Your task to perform on an android device: turn off smart reply in the gmail app Image 0: 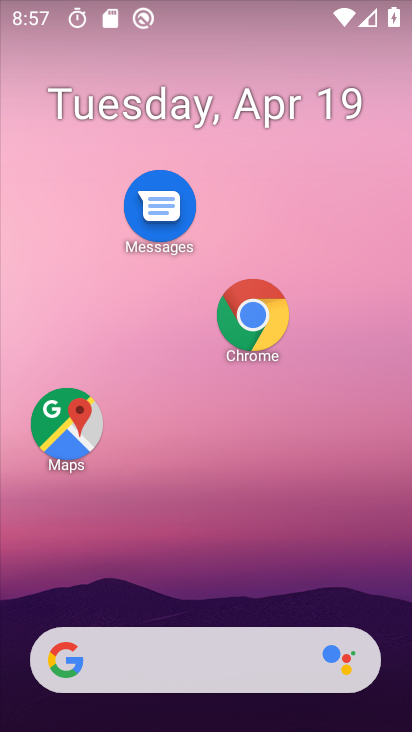
Step 0: drag from (192, 645) to (126, 35)
Your task to perform on an android device: turn off smart reply in the gmail app Image 1: 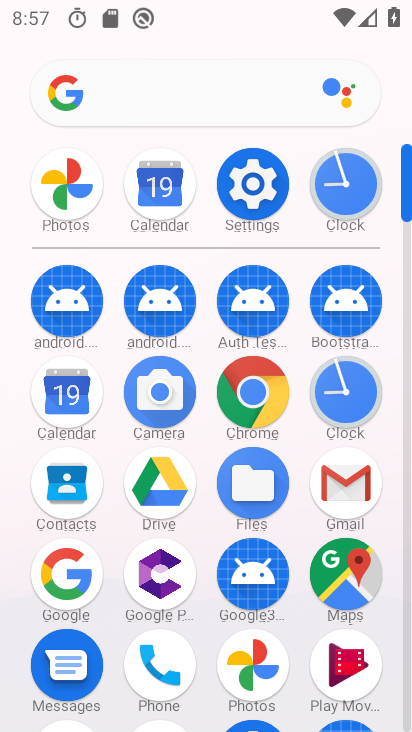
Step 1: click (363, 503)
Your task to perform on an android device: turn off smart reply in the gmail app Image 2: 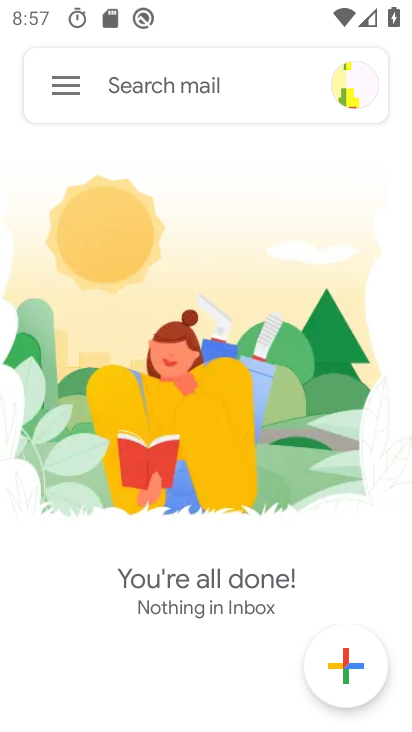
Step 2: click (55, 87)
Your task to perform on an android device: turn off smart reply in the gmail app Image 3: 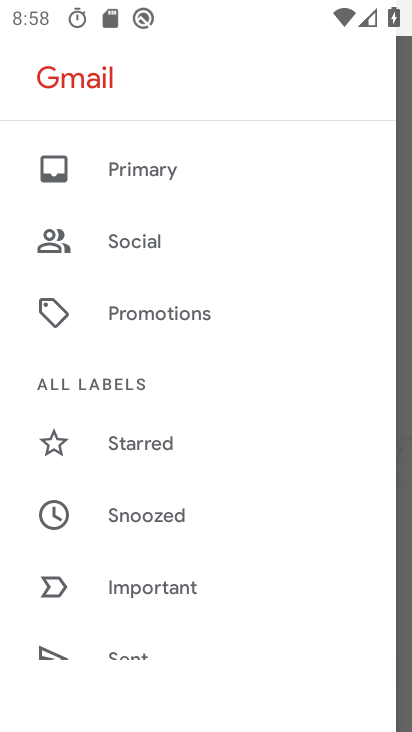
Step 3: drag from (154, 608) to (159, 127)
Your task to perform on an android device: turn off smart reply in the gmail app Image 4: 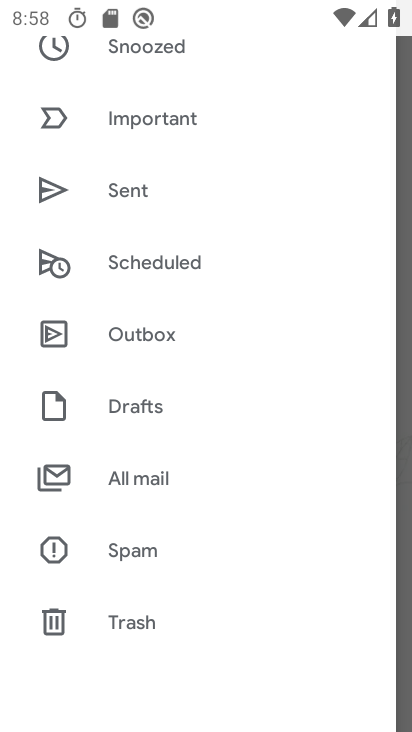
Step 4: drag from (156, 570) to (142, 75)
Your task to perform on an android device: turn off smart reply in the gmail app Image 5: 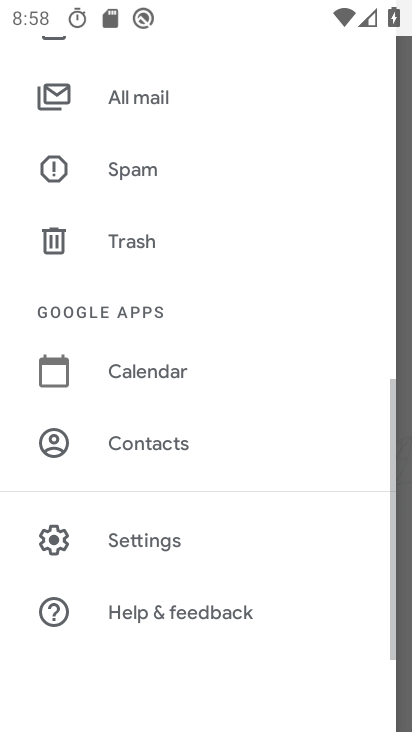
Step 5: click (126, 533)
Your task to perform on an android device: turn off smart reply in the gmail app Image 6: 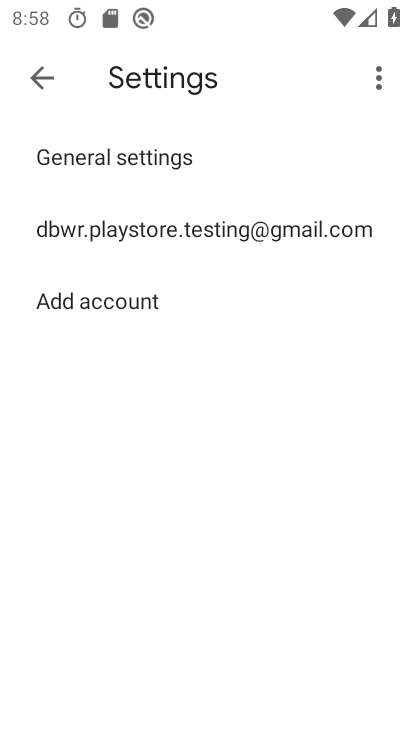
Step 6: click (132, 218)
Your task to perform on an android device: turn off smart reply in the gmail app Image 7: 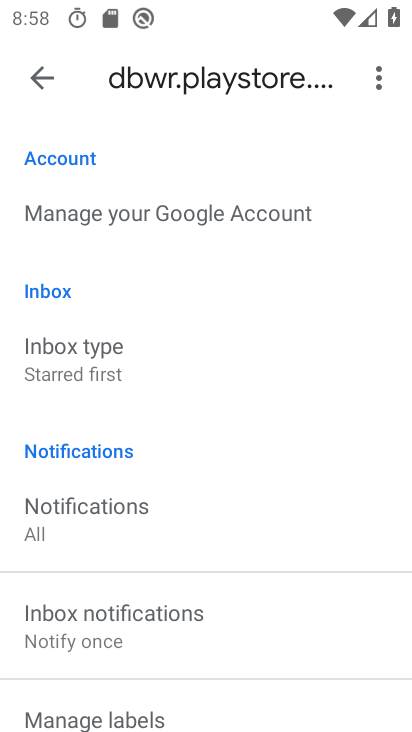
Step 7: drag from (194, 580) to (170, 141)
Your task to perform on an android device: turn off smart reply in the gmail app Image 8: 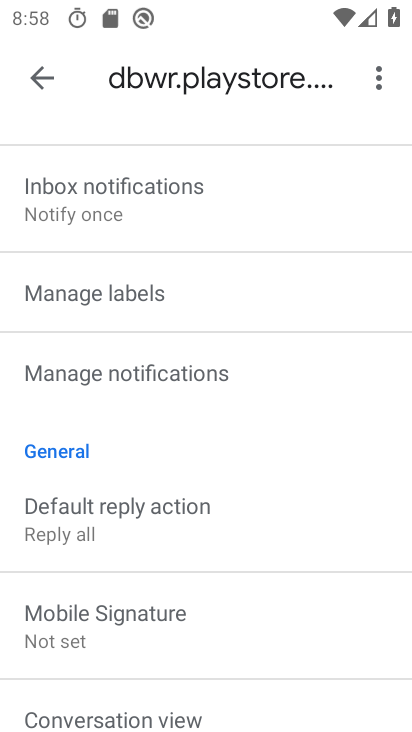
Step 8: drag from (174, 673) to (151, 138)
Your task to perform on an android device: turn off smart reply in the gmail app Image 9: 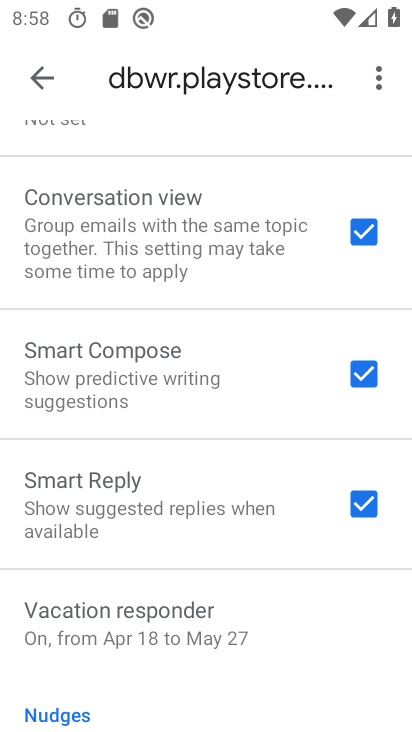
Step 9: click (360, 493)
Your task to perform on an android device: turn off smart reply in the gmail app Image 10: 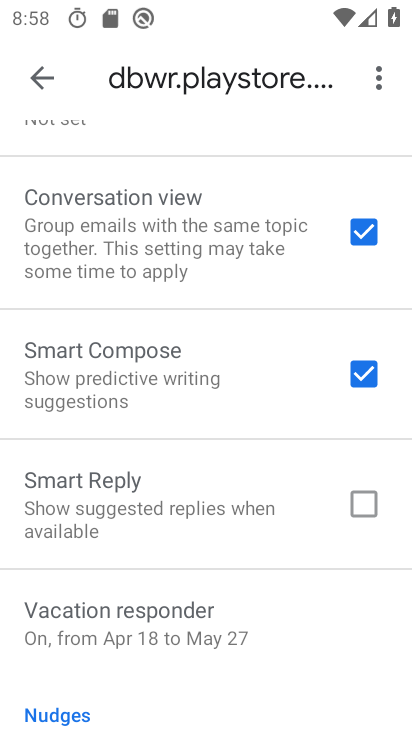
Step 10: task complete